Your task to perform on an android device: Do I have any events this weekend? Image 0: 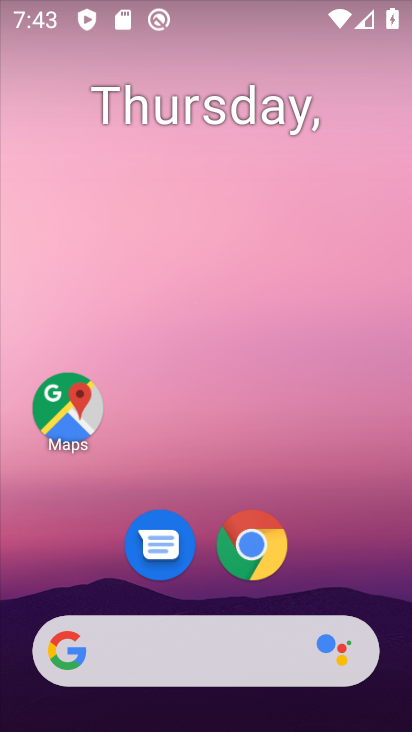
Step 0: drag from (219, 588) to (407, 299)
Your task to perform on an android device: Do I have any events this weekend? Image 1: 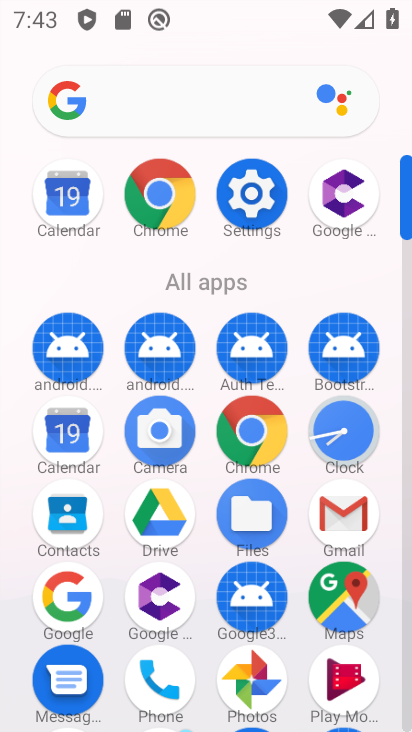
Step 1: click (52, 475)
Your task to perform on an android device: Do I have any events this weekend? Image 2: 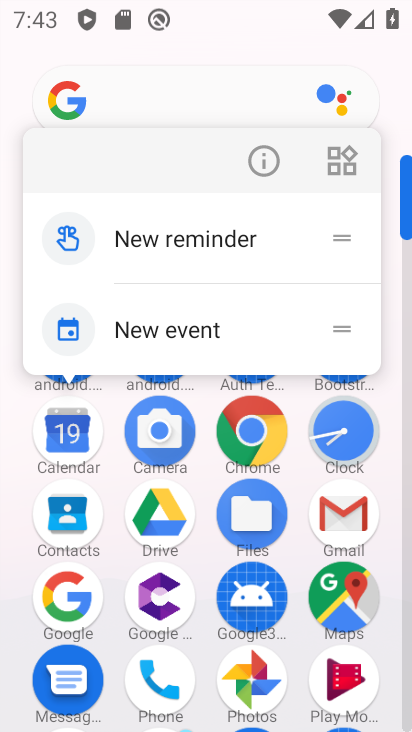
Step 2: click (266, 163)
Your task to perform on an android device: Do I have any events this weekend? Image 3: 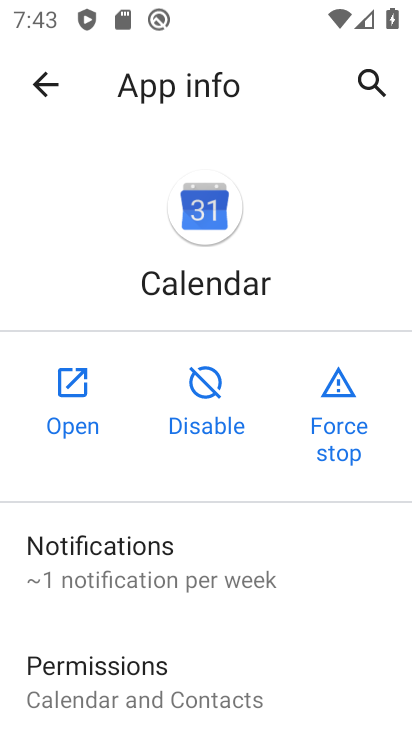
Step 3: click (41, 383)
Your task to perform on an android device: Do I have any events this weekend? Image 4: 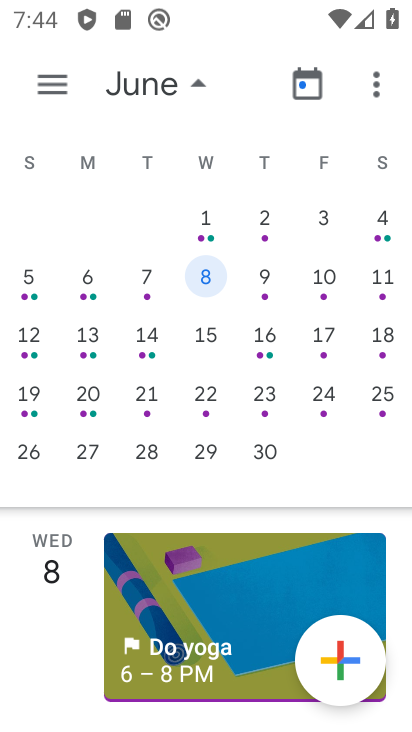
Step 4: drag from (12, 328) to (365, 263)
Your task to perform on an android device: Do I have any events this weekend? Image 5: 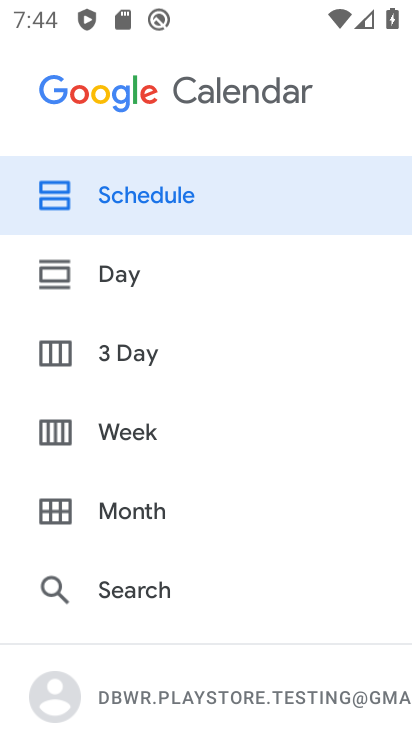
Step 5: press back button
Your task to perform on an android device: Do I have any events this weekend? Image 6: 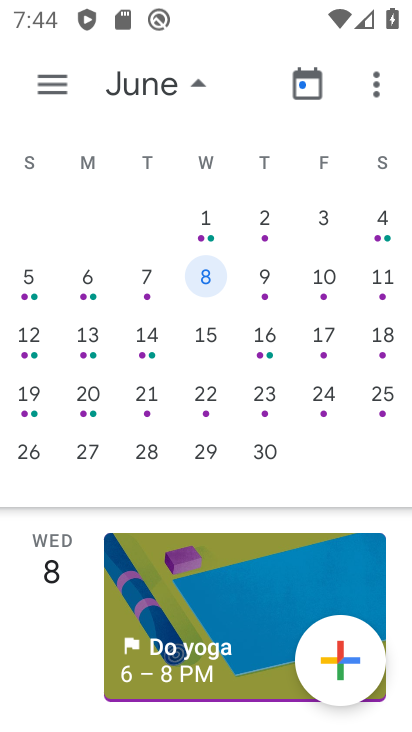
Step 6: drag from (28, 418) to (399, 280)
Your task to perform on an android device: Do I have any events this weekend? Image 7: 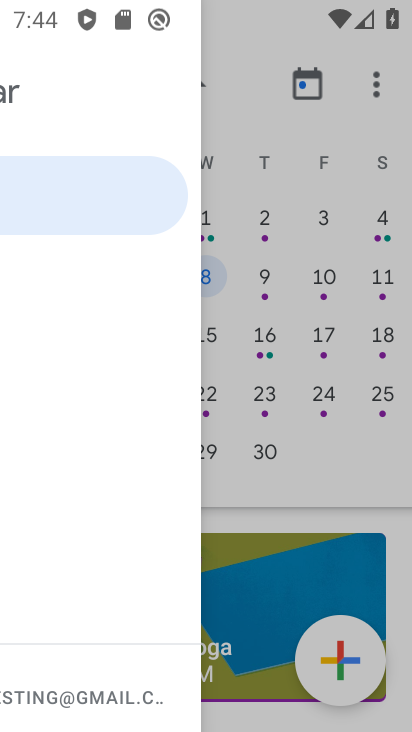
Step 7: press back button
Your task to perform on an android device: Do I have any events this weekend? Image 8: 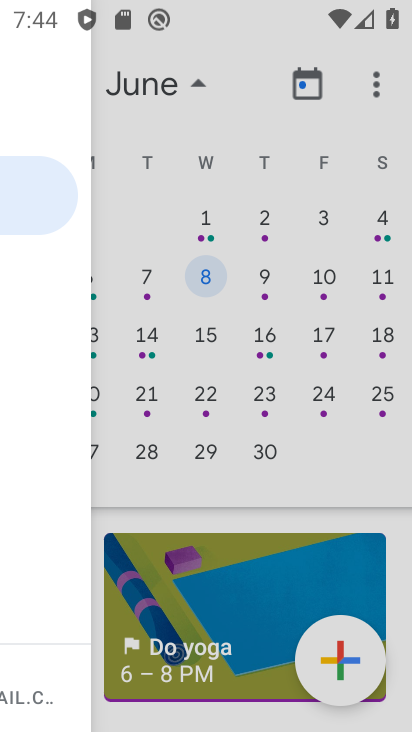
Step 8: drag from (399, 280) to (394, 397)
Your task to perform on an android device: Do I have any events this weekend? Image 9: 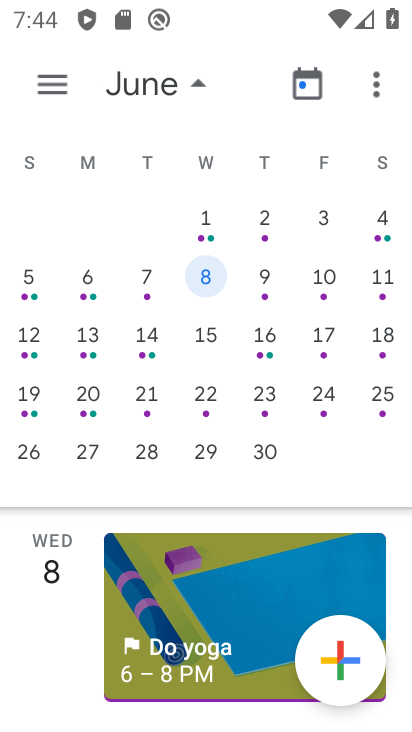
Step 9: drag from (111, 448) to (408, 349)
Your task to perform on an android device: Do I have any events this weekend? Image 10: 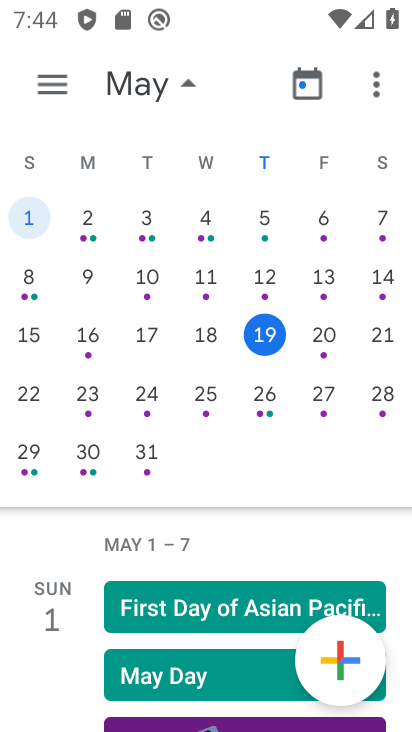
Step 10: click (264, 411)
Your task to perform on an android device: Do I have any events this weekend? Image 11: 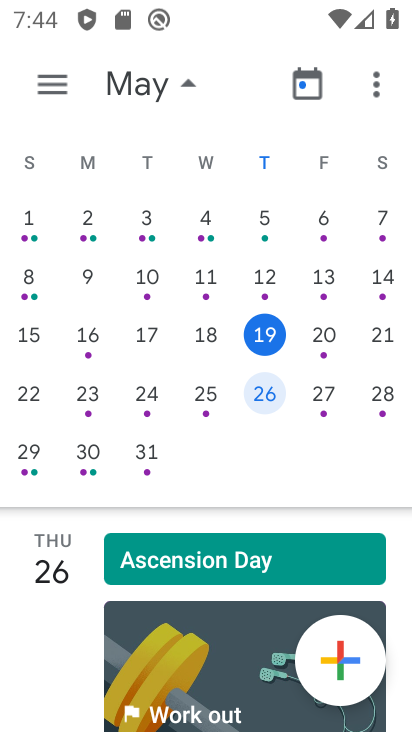
Step 11: task complete